Your task to perform on an android device: Set the phone to "Do not disturb". Image 0: 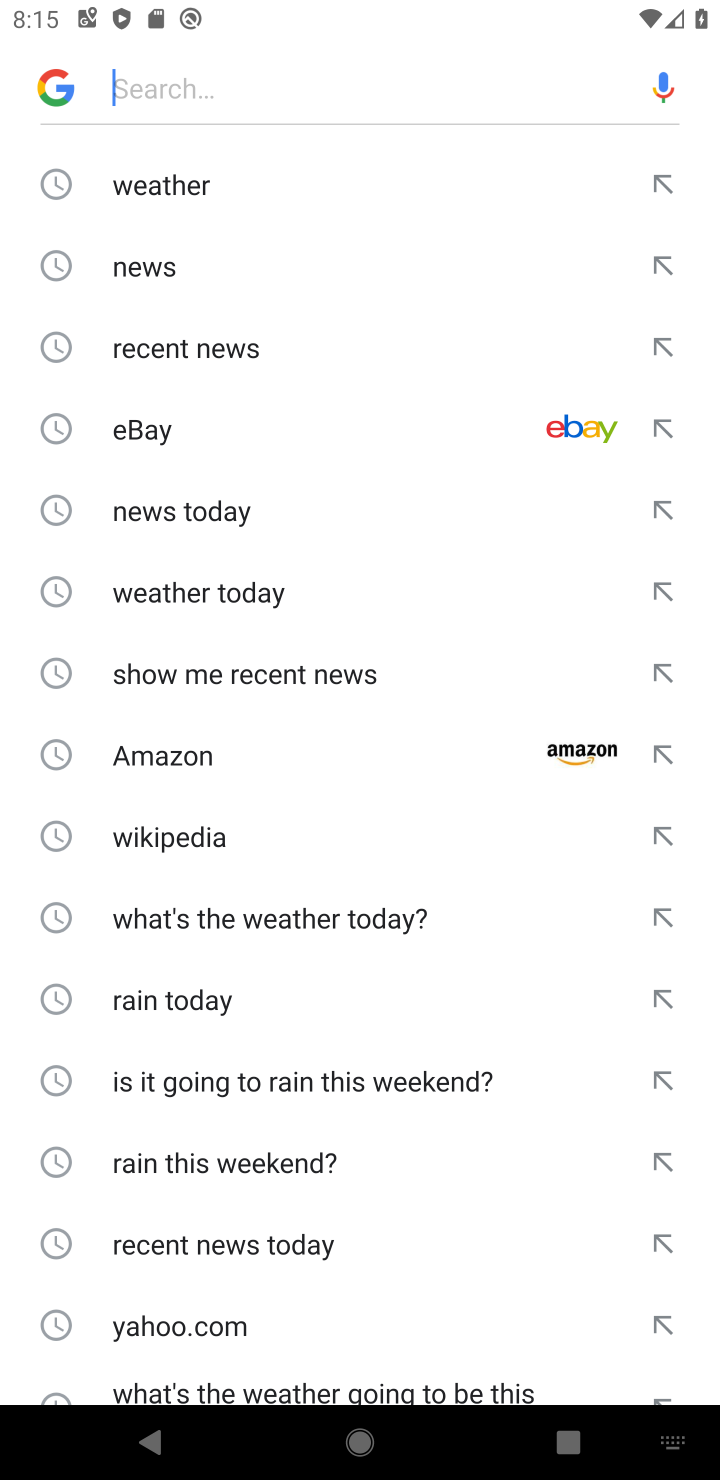
Step 0: press home button
Your task to perform on an android device: Set the phone to "Do not disturb". Image 1: 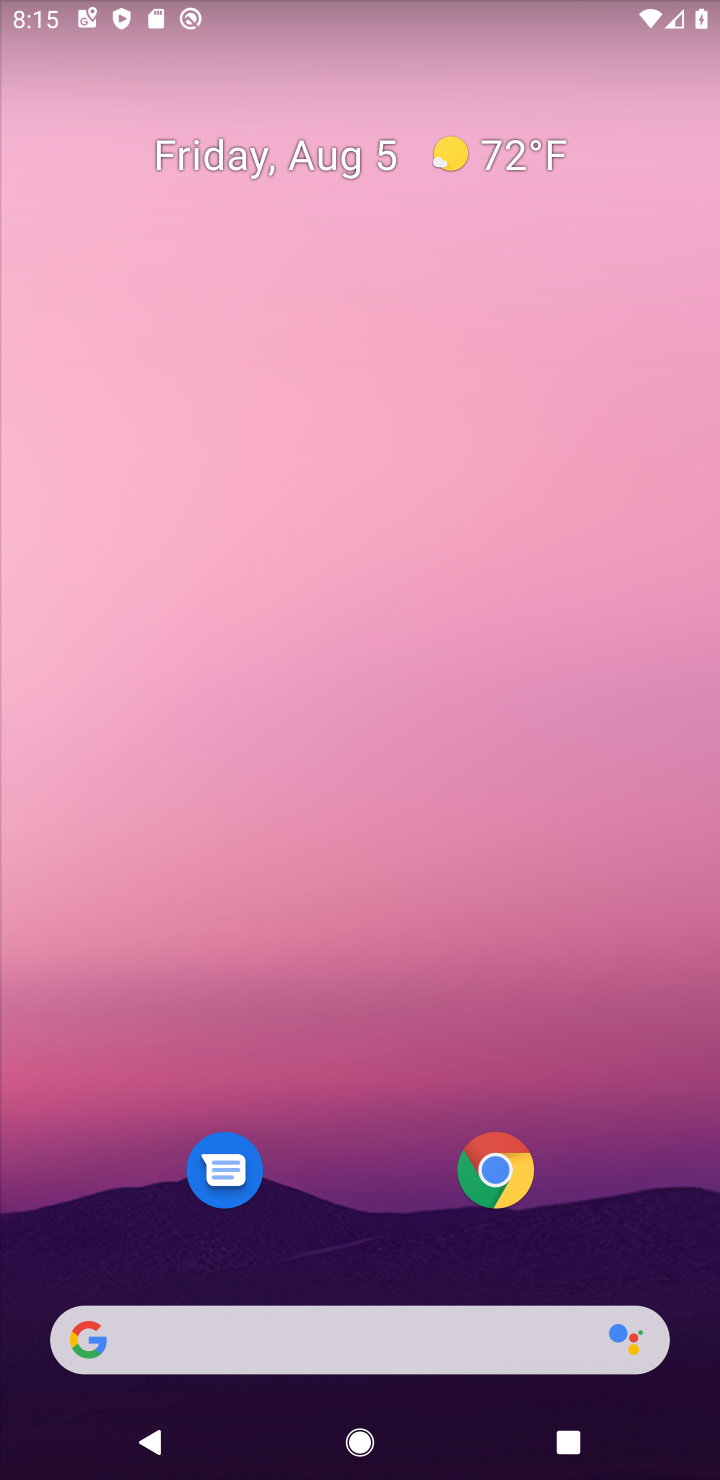
Step 1: drag from (651, 1236) to (578, 63)
Your task to perform on an android device: Set the phone to "Do not disturb". Image 2: 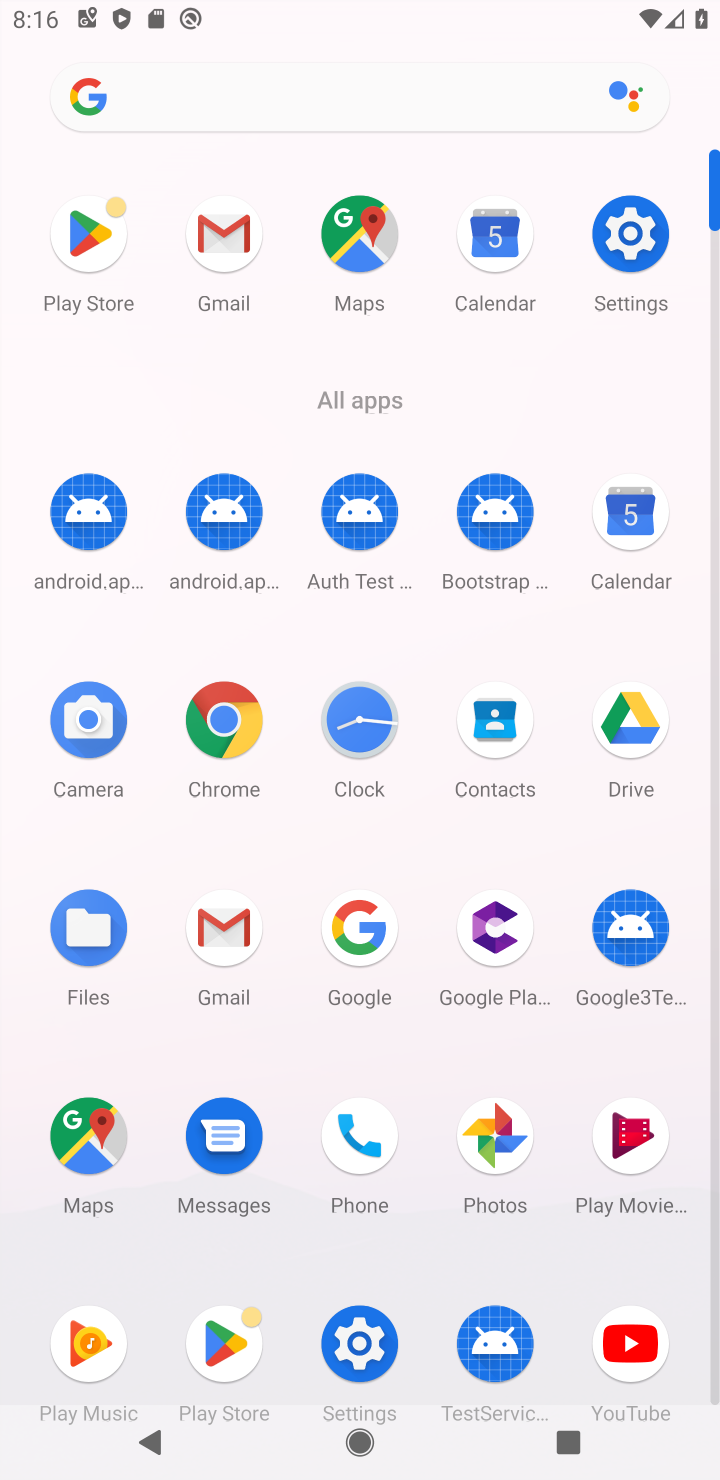
Step 2: click (359, 1344)
Your task to perform on an android device: Set the phone to "Do not disturb". Image 3: 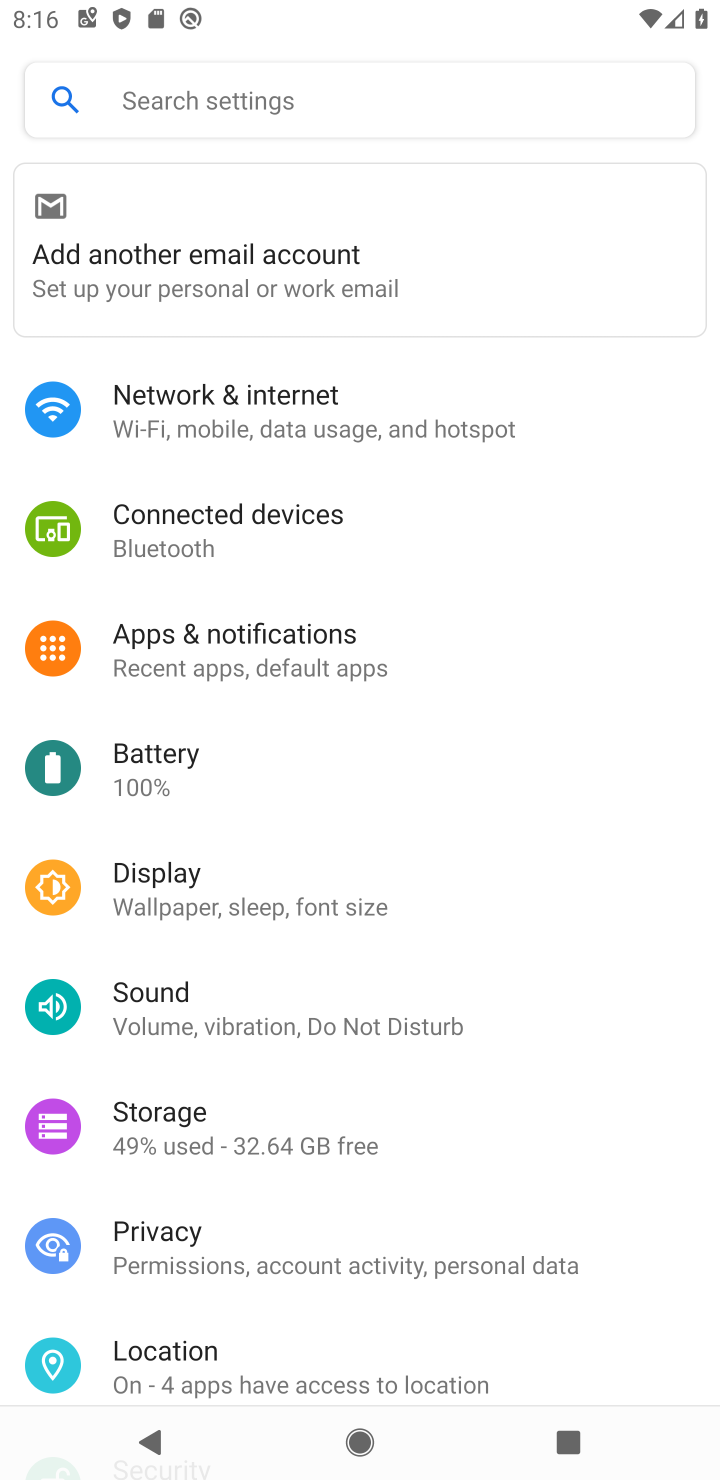
Step 3: click (163, 1017)
Your task to perform on an android device: Set the phone to "Do not disturb". Image 4: 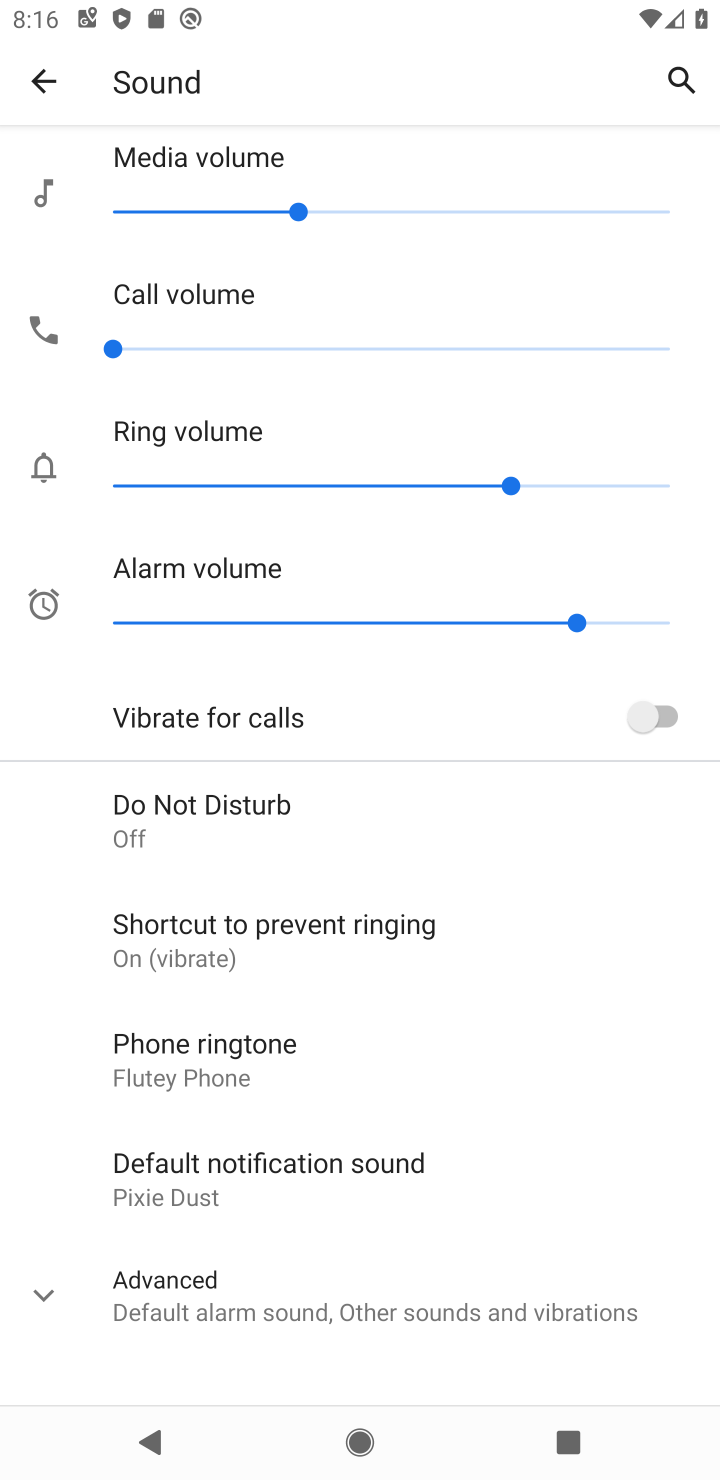
Step 4: click (45, 1296)
Your task to perform on an android device: Set the phone to "Do not disturb". Image 5: 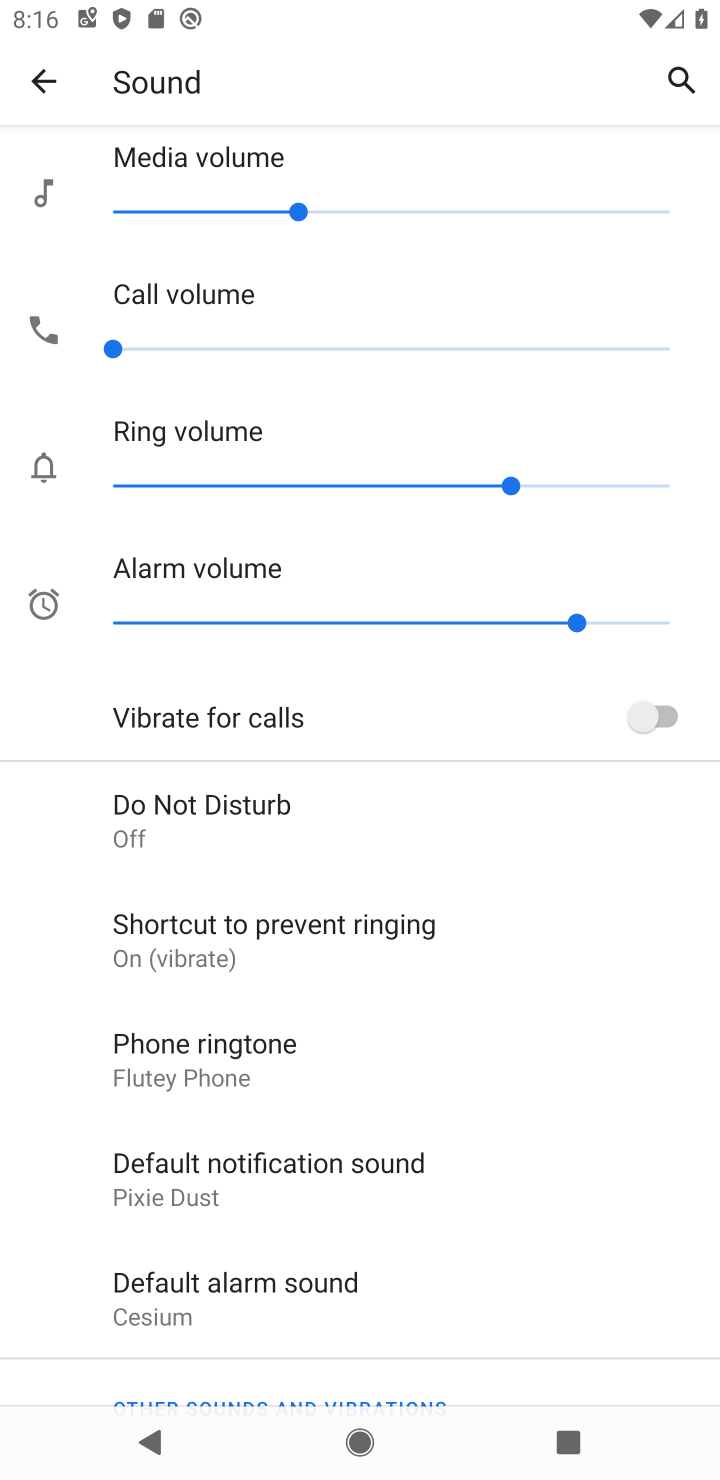
Step 5: click (143, 813)
Your task to perform on an android device: Set the phone to "Do not disturb". Image 6: 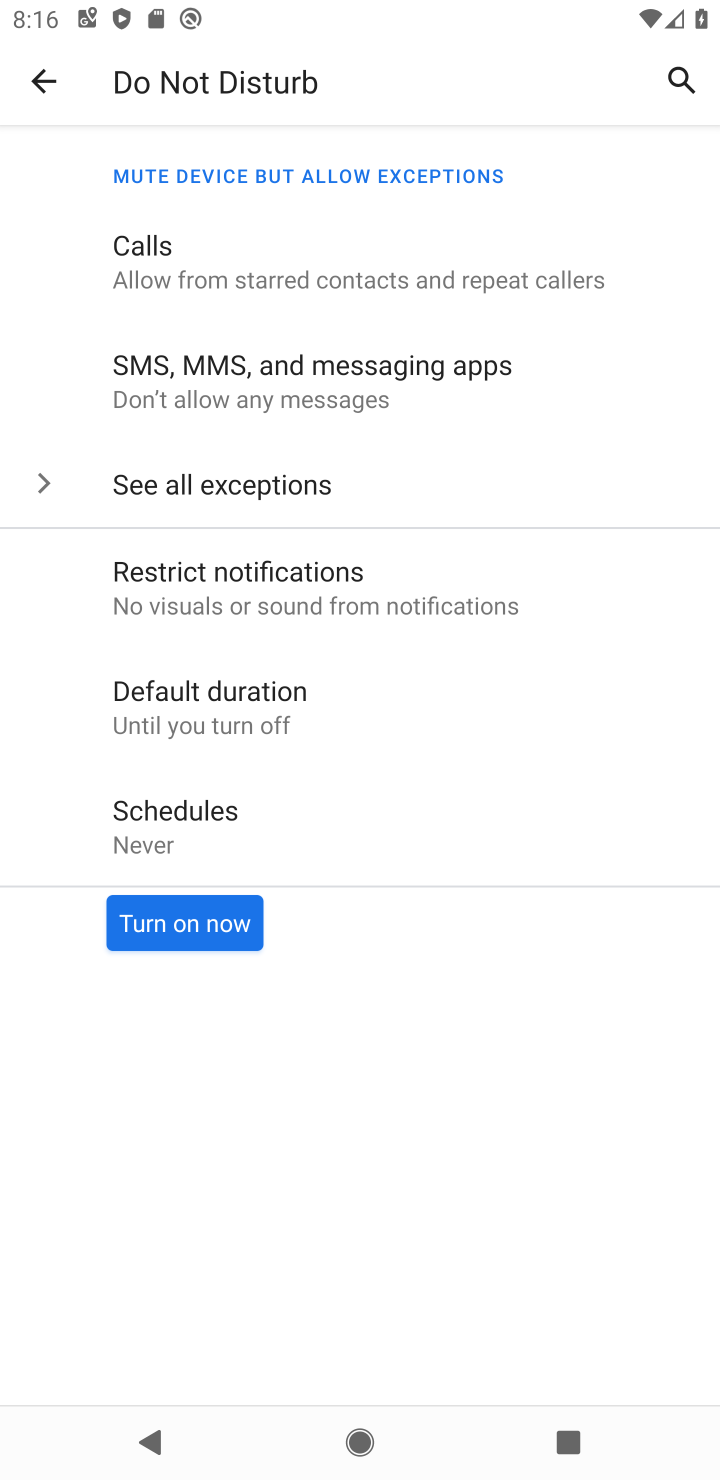
Step 6: click (184, 912)
Your task to perform on an android device: Set the phone to "Do not disturb". Image 7: 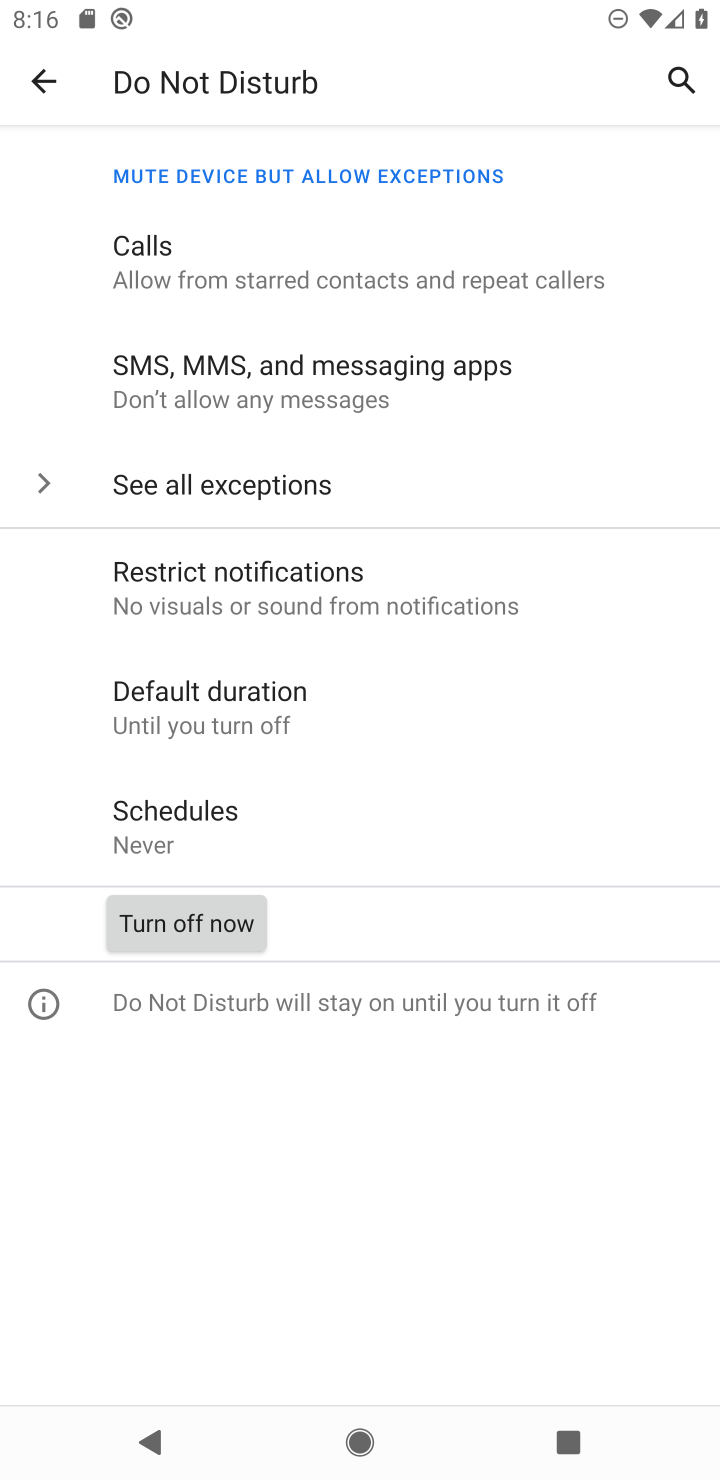
Step 7: task complete